Your task to perform on an android device: What's the weather today? Image 0: 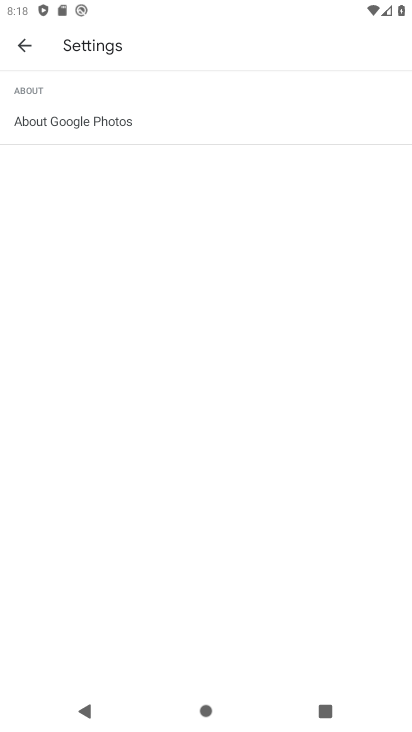
Step 0: press home button
Your task to perform on an android device: What's the weather today? Image 1: 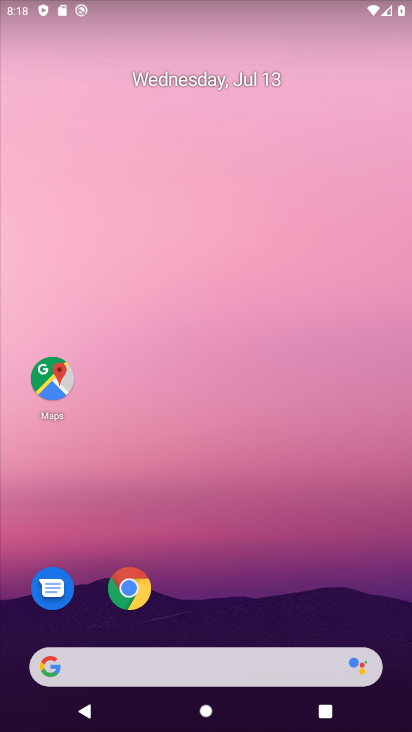
Step 1: drag from (271, 595) to (263, 102)
Your task to perform on an android device: What's the weather today? Image 2: 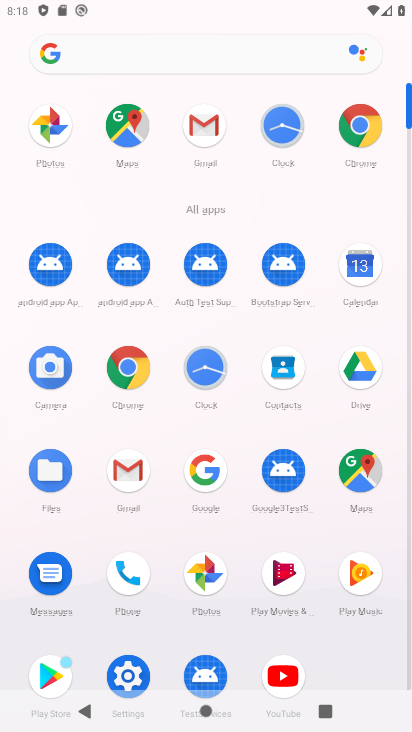
Step 2: click (367, 120)
Your task to perform on an android device: What's the weather today? Image 3: 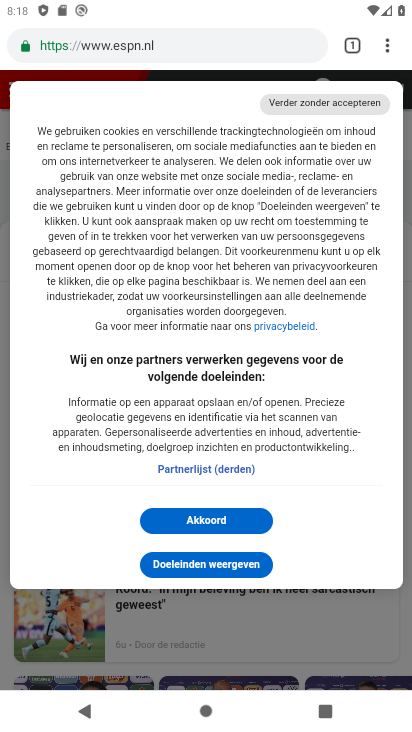
Step 3: click (170, 47)
Your task to perform on an android device: What's the weather today? Image 4: 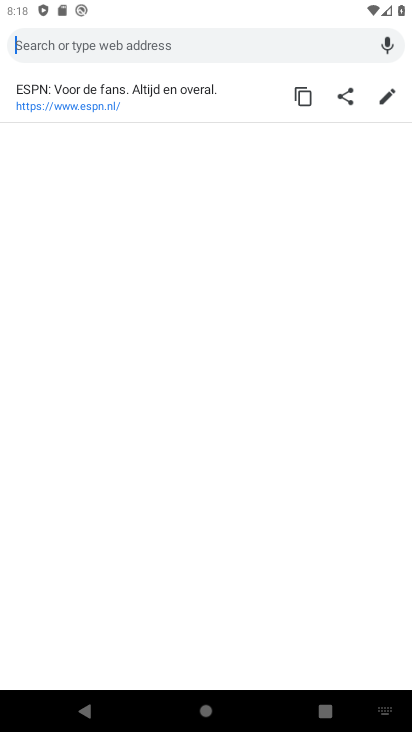
Step 4: type "What's the weather today?"
Your task to perform on an android device: What's the weather today? Image 5: 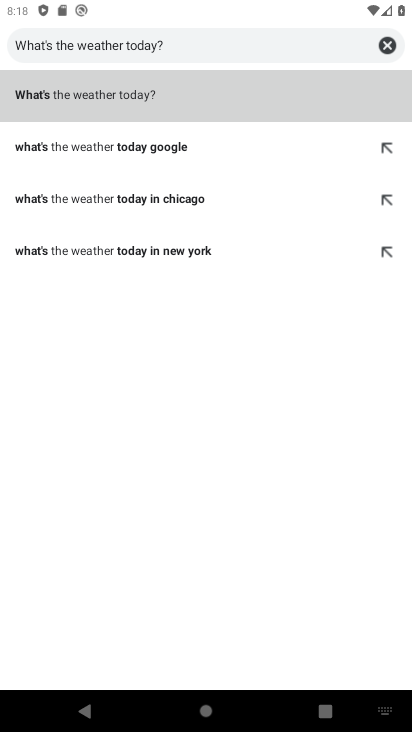
Step 5: click (192, 103)
Your task to perform on an android device: What's the weather today? Image 6: 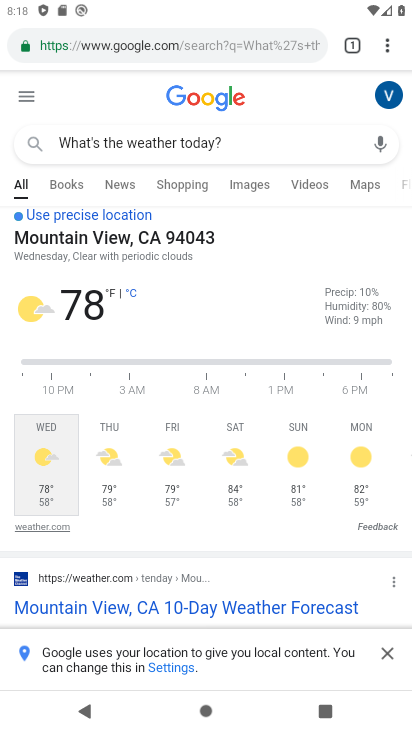
Step 6: task complete